Your task to perform on an android device: Open Google Chrome and click the shortcut for Amazon.com Image 0: 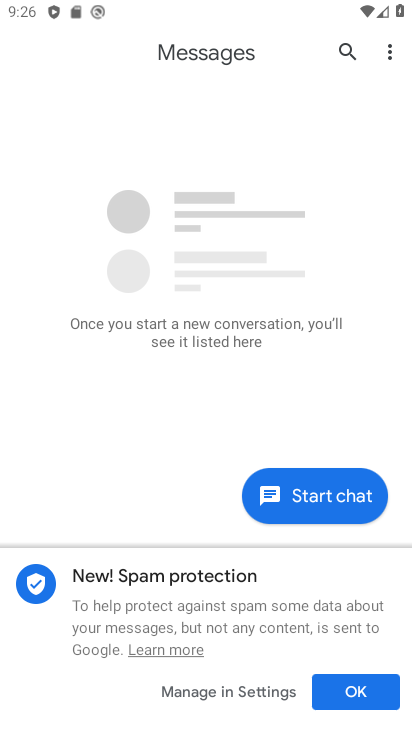
Step 0: press home button
Your task to perform on an android device: Open Google Chrome and click the shortcut for Amazon.com Image 1: 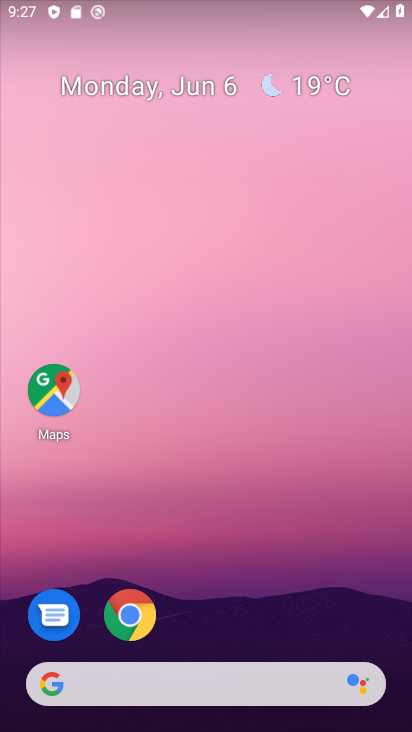
Step 1: click (227, 682)
Your task to perform on an android device: Open Google Chrome and click the shortcut for Amazon.com Image 2: 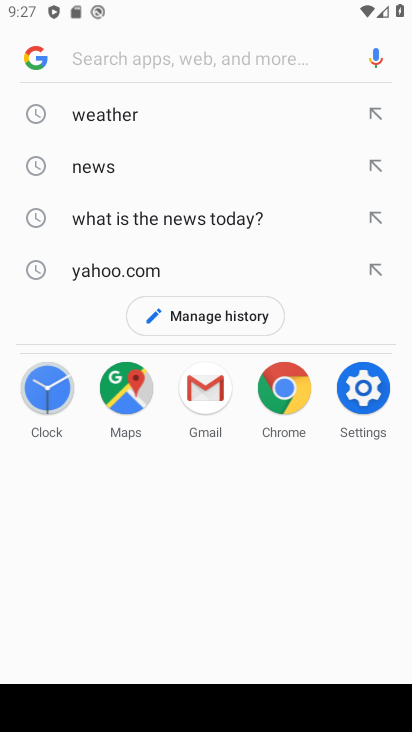
Step 2: type "amazon"
Your task to perform on an android device: Open Google Chrome and click the shortcut for Amazon.com Image 3: 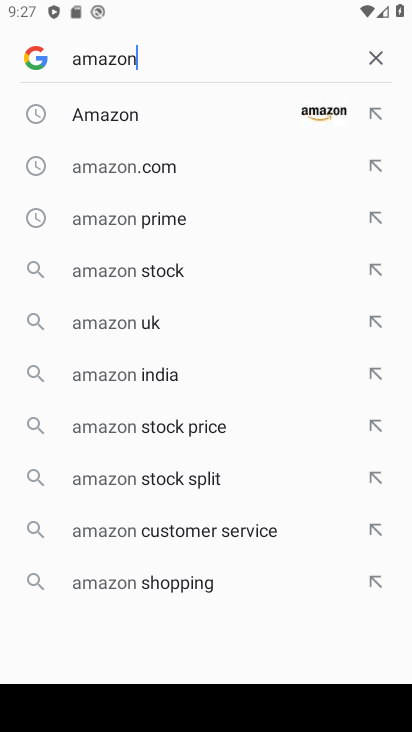
Step 3: click (166, 118)
Your task to perform on an android device: Open Google Chrome and click the shortcut for Amazon.com Image 4: 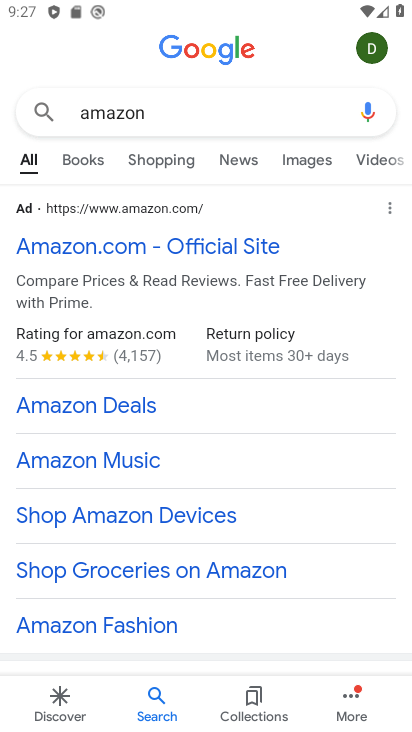
Step 4: task complete